Your task to perform on an android device: turn on improve location accuracy Image 0: 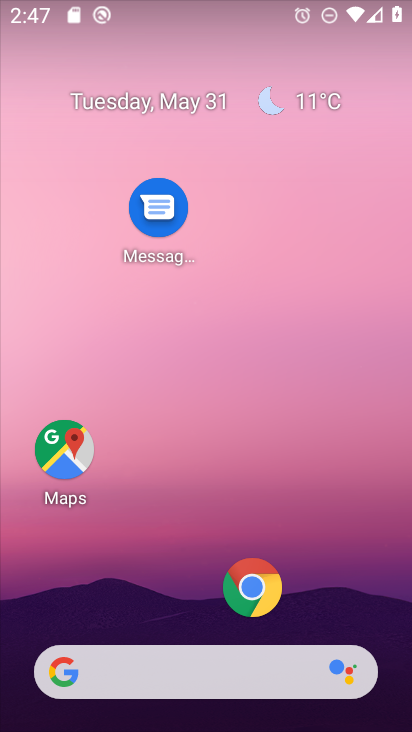
Step 0: drag from (193, 598) to (256, 96)
Your task to perform on an android device: turn on improve location accuracy Image 1: 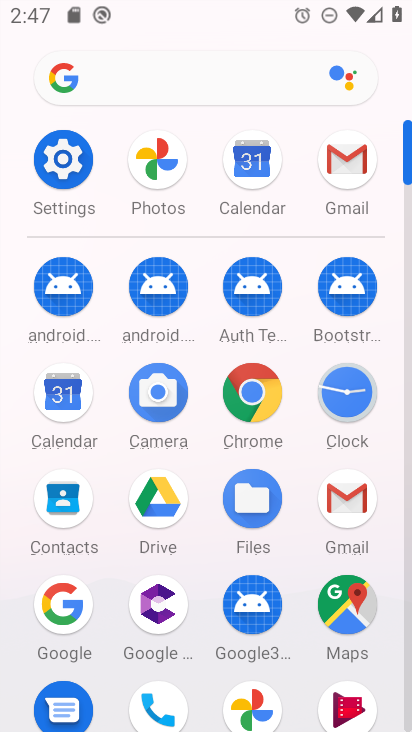
Step 1: click (60, 166)
Your task to perform on an android device: turn on improve location accuracy Image 2: 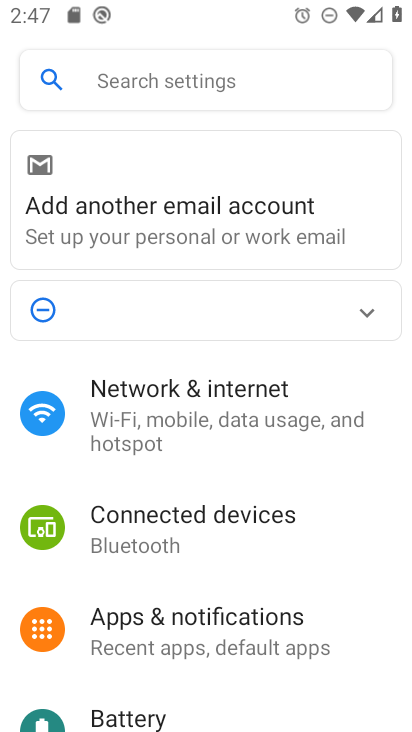
Step 2: drag from (264, 628) to (373, 91)
Your task to perform on an android device: turn on improve location accuracy Image 3: 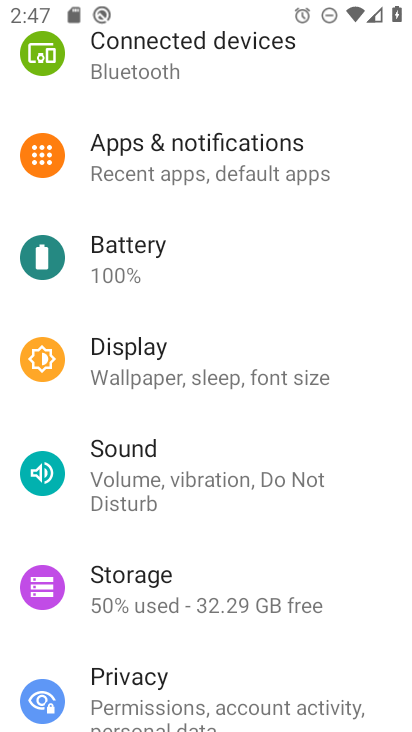
Step 3: drag from (207, 249) to (316, 601)
Your task to perform on an android device: turn on improve location accuracy Image 4: 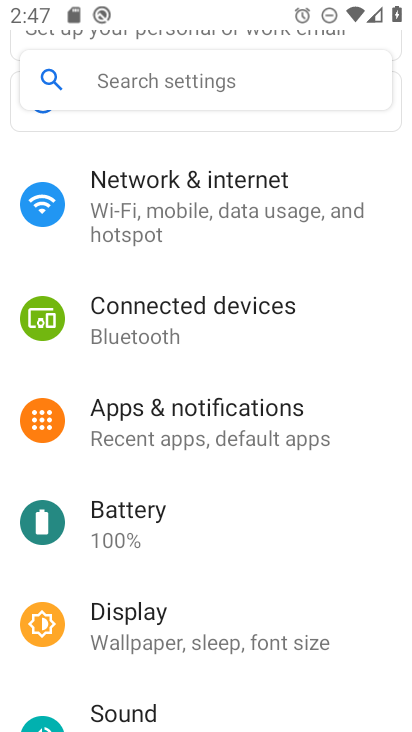
Step 4: drag from (305, 569) to (385, 48)
Your task to perform on an android device: turn on improve location accuracy Image 5: 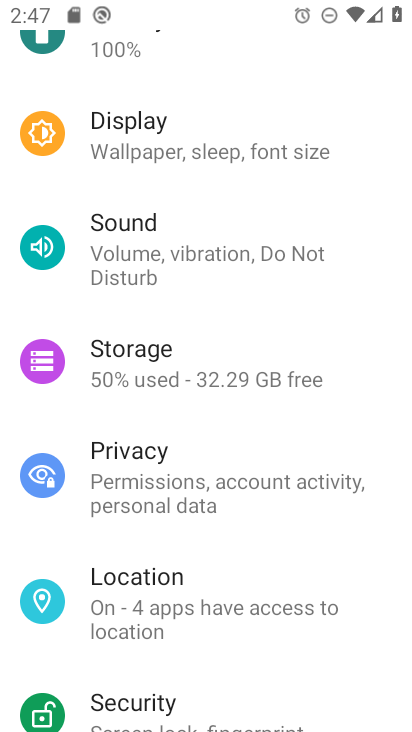
Step 5: click (155, 609)
Your task to perform on an android device: turn on improve location accuracy Image 6: 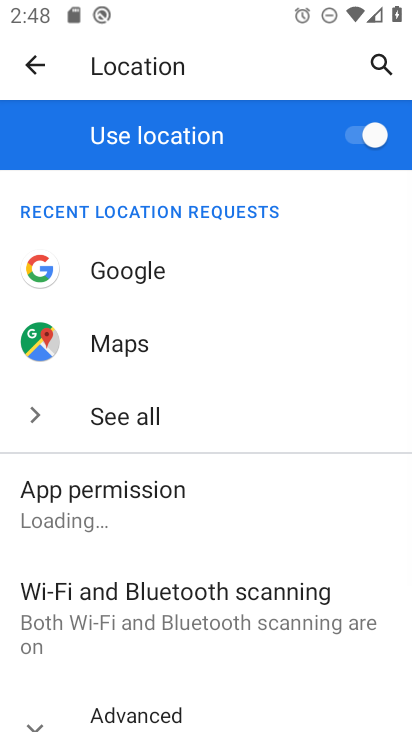
Step 6: click (252, 263)
Your task to perform on an android device: turn on improve location accuracy Image 7: 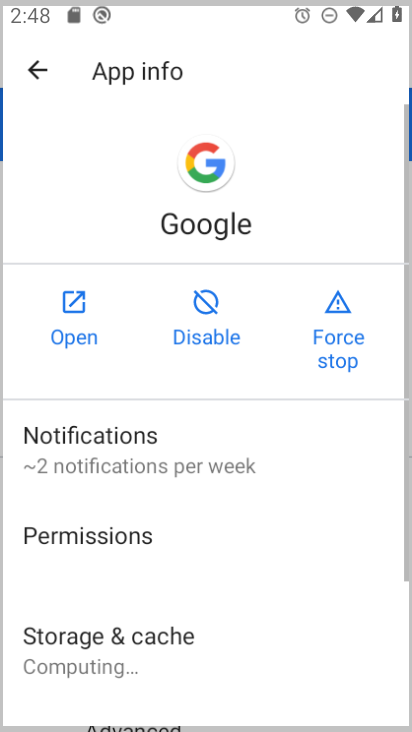
Step 7: drag from (243, 471) to (349, 104)
Your task to perform on an android device: turn on improve location accuracy Image 8: 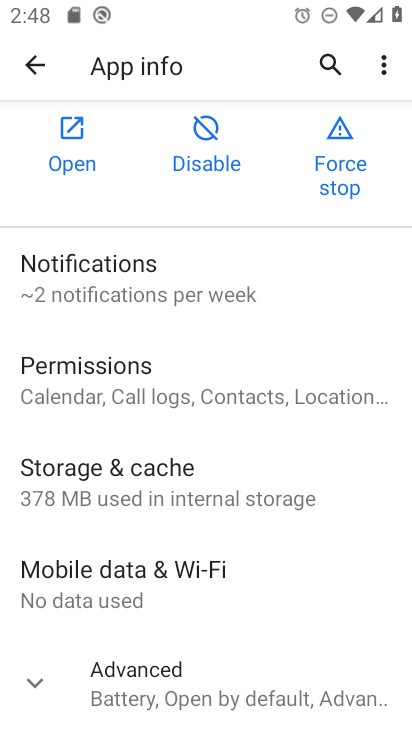
Step 8: press back button
Your task to perform on an android device: turn on improve location accuracy Image 9: 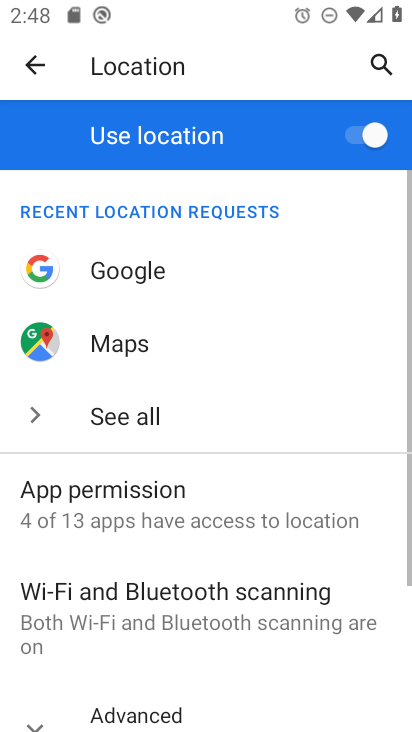
Step 9: drag from (221, 550) to (335, 165)
Your task to perform on an android device: turn on improve location accuracy Image 10: 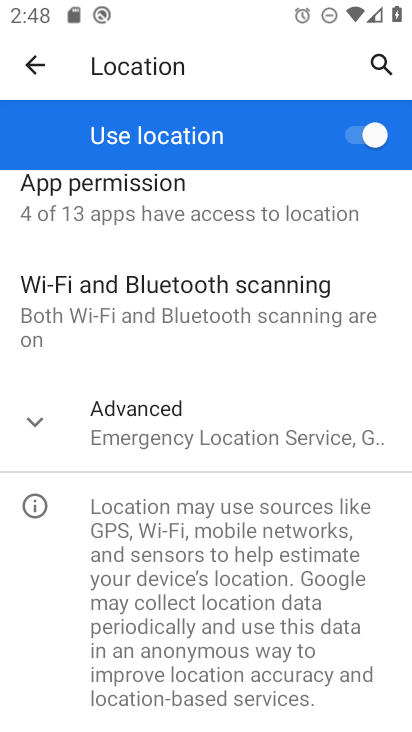
Step 10: click (194, 444)
Your task to perform on an android device: turn on improve location accuracy Image 11: 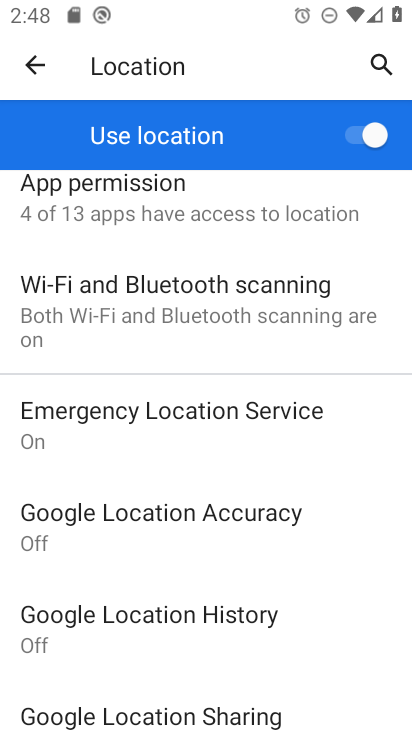
Step 11: click (176, 519)
Your task to perform on an android device: turn on improve location accuracy Image 12: 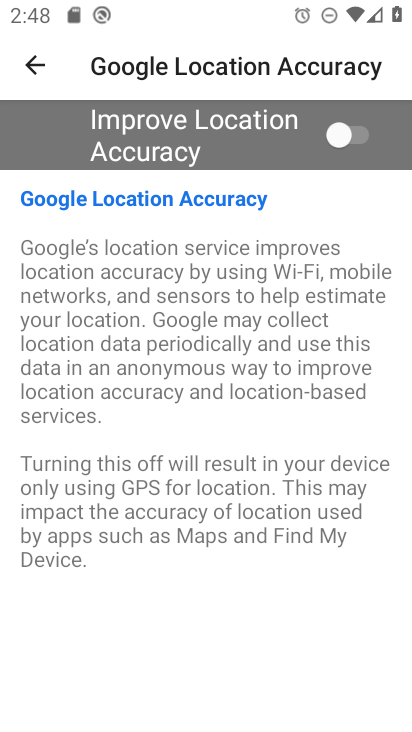
Step 12: click (337, 138)
Your task to perform on an android device: turn on improve location accuracy Image 13: 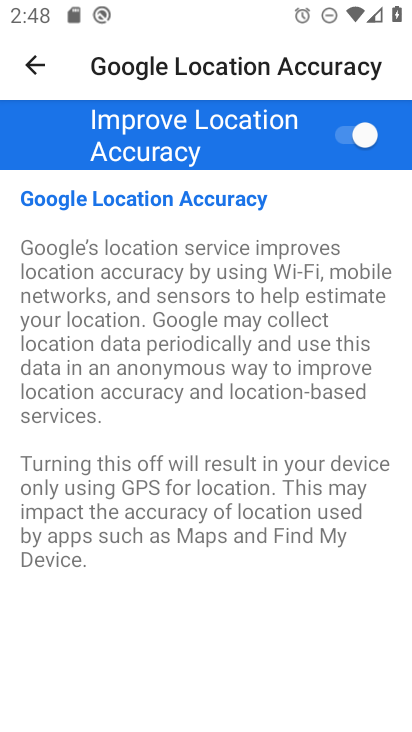
Step 13: task complete